Your task to perform on an android device: find snoozed emails in the gmail app Image 0: 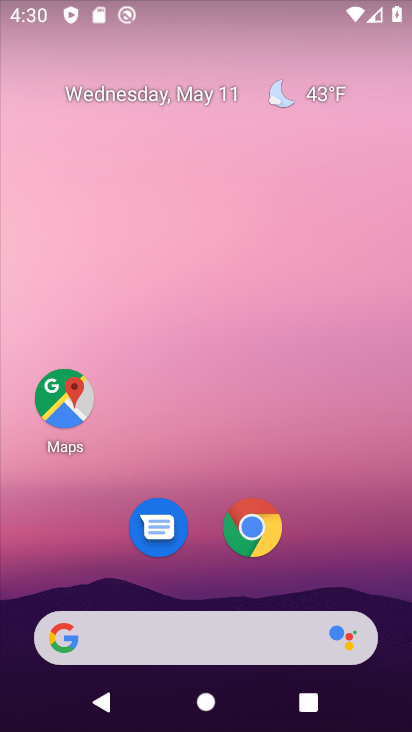
Step 0: drag from (186, 613) to (300, 110)
Your task to perform on an android device: find snoozed emails in the gmail app Image 1: 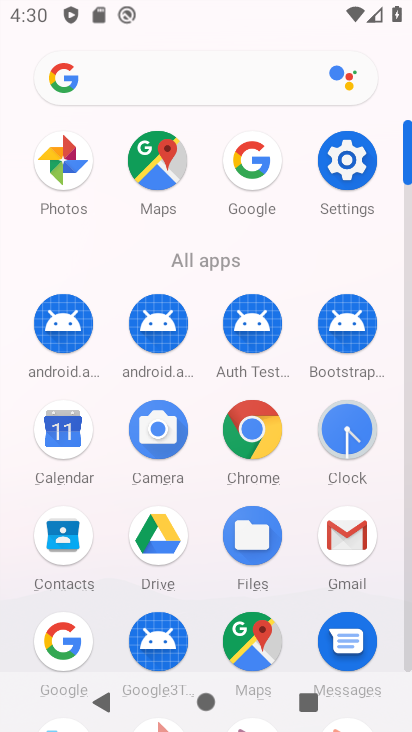
Step 1: click (345, 541)
Your task to perform on an android device: find snoozed emails in the gmail app Image 2: 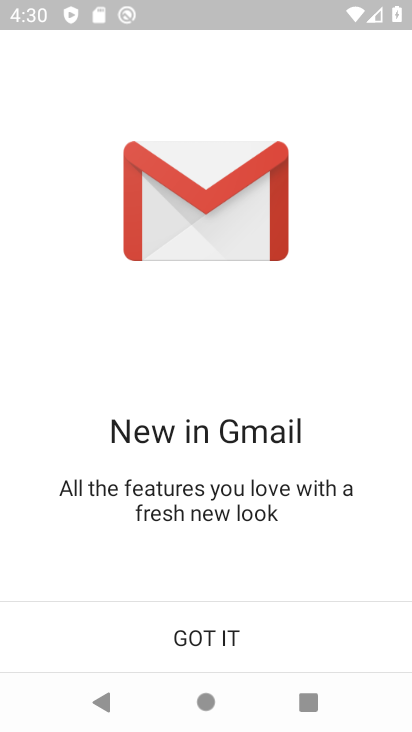
Step 2: click (245, 641)
Your task to perform on an android device: find snoozed emails in the gmail app Image 3: 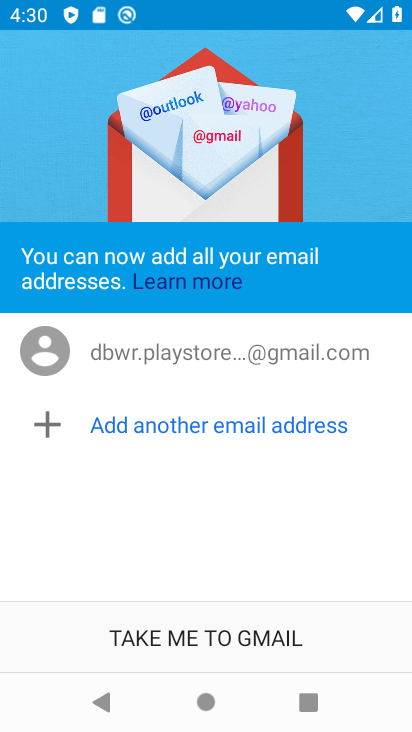
Step 3: click (245, 640)
Your task to perform on an android device: find snoozed emails in the gmail app Image 4: 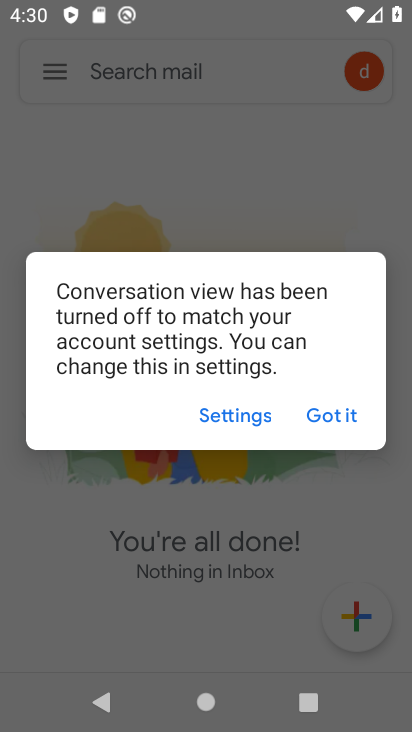
Step 4: click (349, 422)
Your task to perform on an android device: find snoozed emails in the gmail app Image 5: 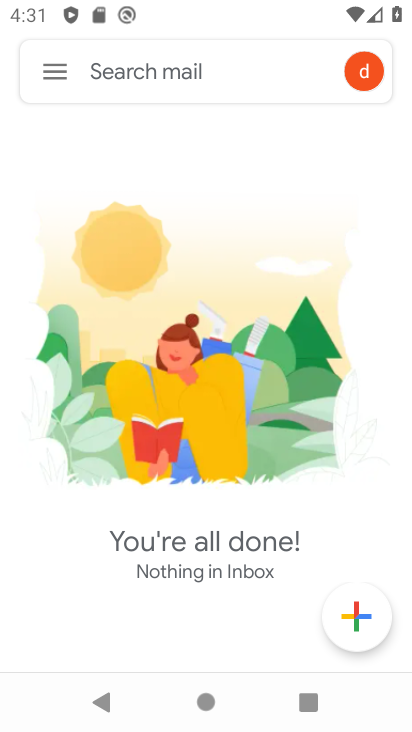
Step 5: click (45, 70)
Your task to perform on an android device: find snoozed emails in the gmail app Image 6: 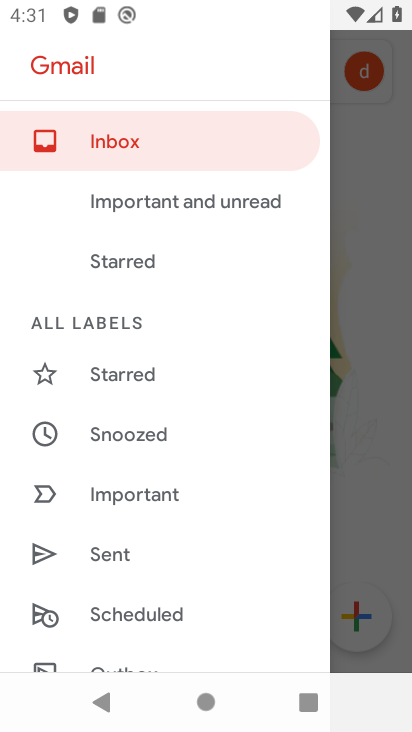
Step 6: click (173, 441)
Your task to perform on an android device: find snoozed emails in the gmail app Image 7: 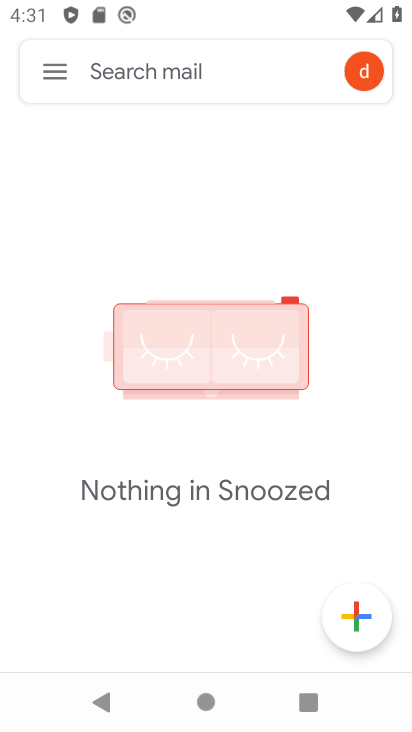
Step 7: task complete